Your task to perform on an android device: turn off notifications settings in the gmail app Image 0: 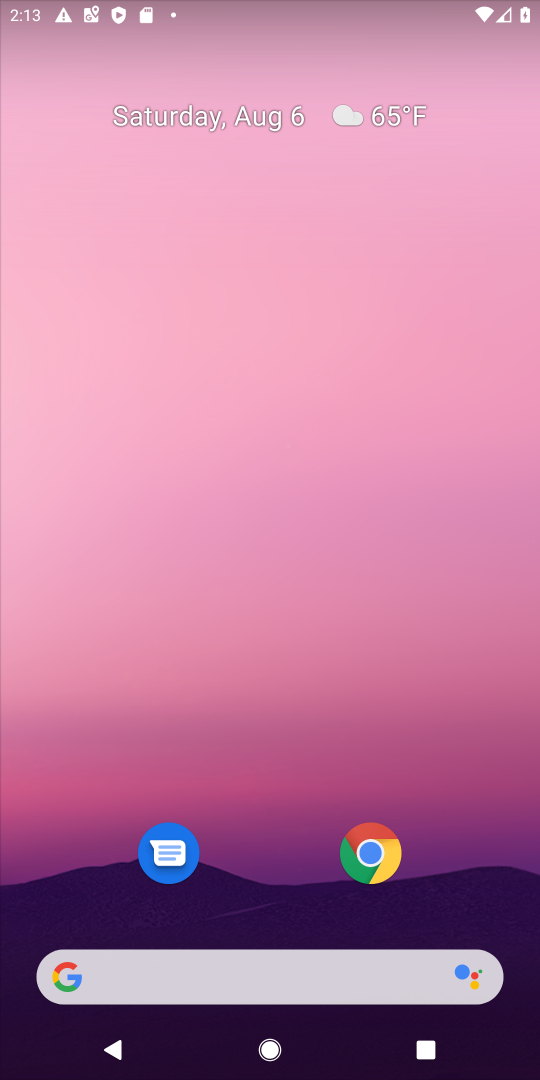
Step 0: drag from (215, 825) to (310, 131)
Your task to perform on an android device: turn off notifications settings in the gmail app Image 1: 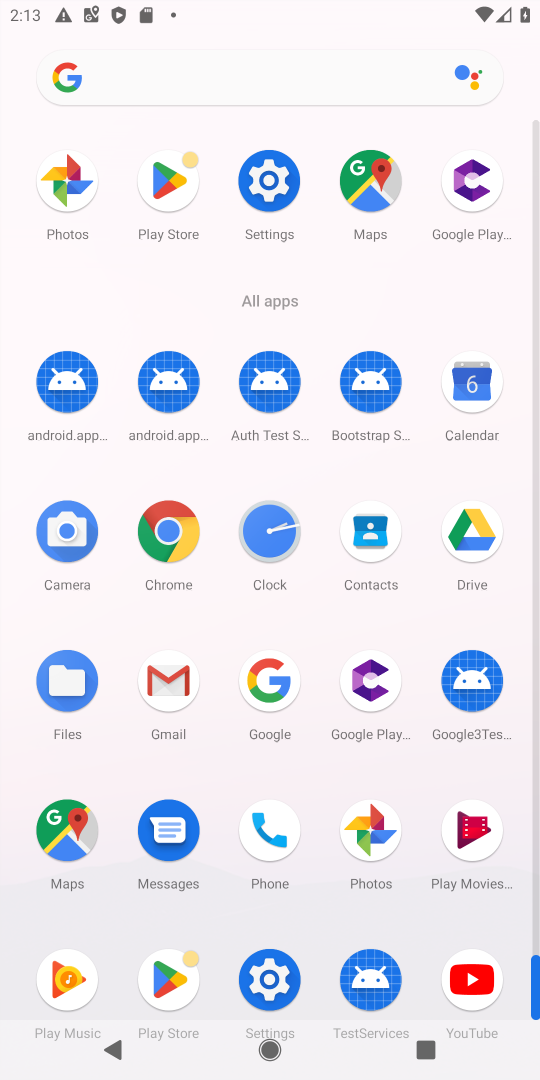
Step 1: click (147, 683)
Your task to perform on an android device: turn off notifications settings in the gmail app Image 2: 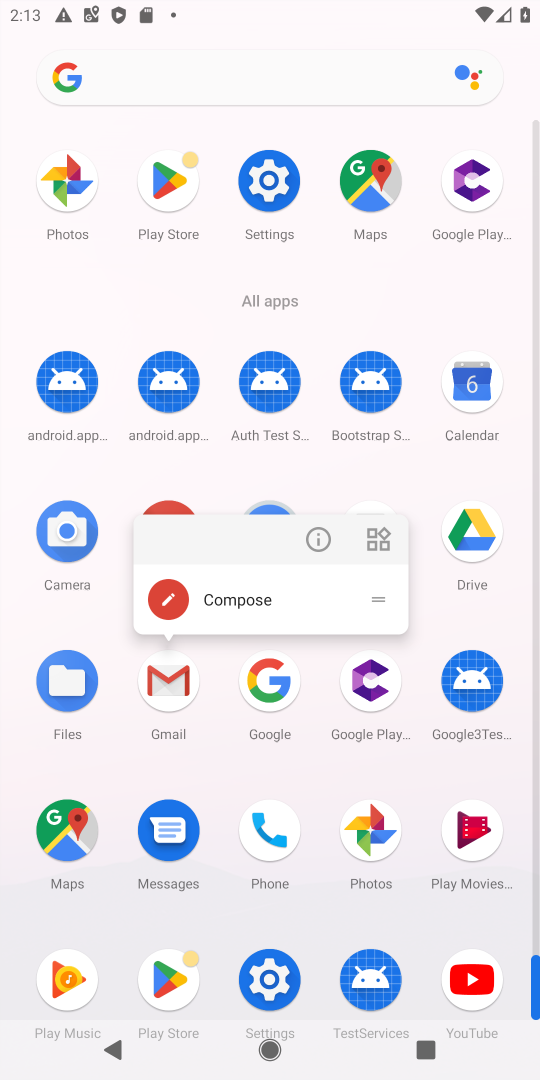
Step 2: click (313, 537)
Your task to perform on an android device: turn off notifications settings in the gmail app Image 3: 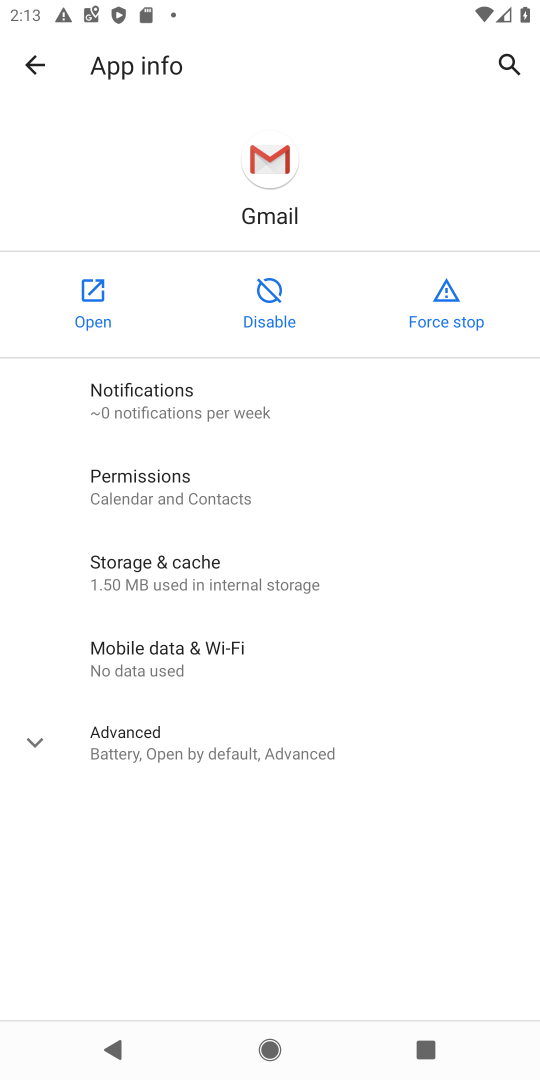
Step 3: click (190, 395)
Your task to perform on an android device: turn off notifications settings in the gmail app Image 4: 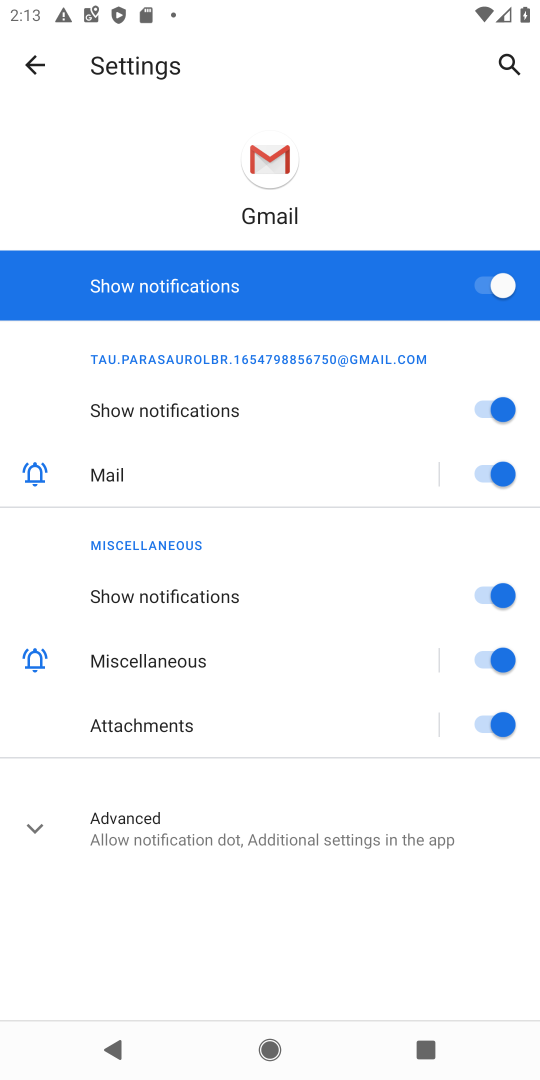
Step 4: click (500, 278)
Your task to perform on an android device: turn off notifications settings in the gmail app Image 5: 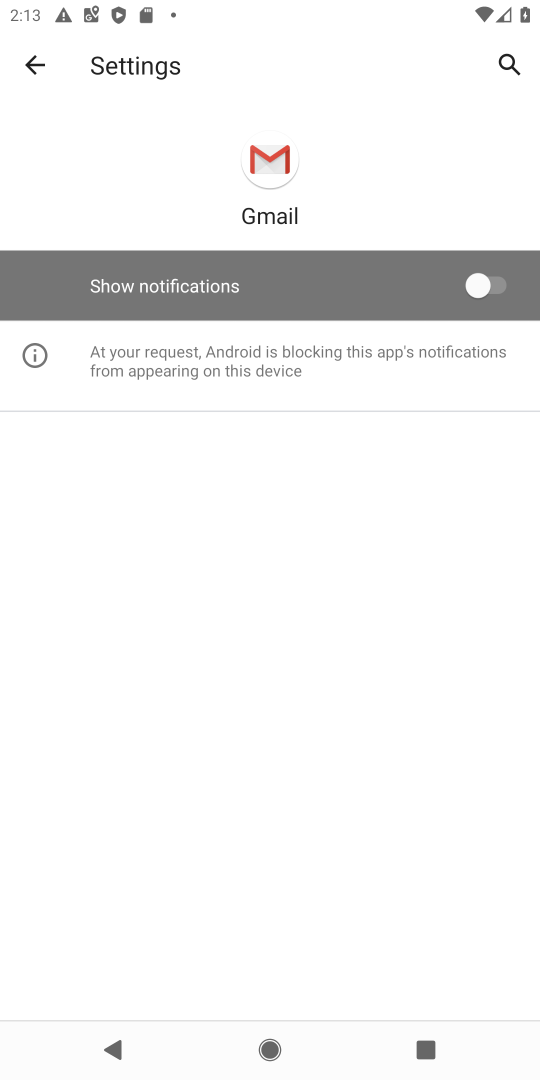
Step 5: task complete